Your task to perform on an android device: Search for macbook pro on costco.com, select the first entry, add it to the cart, then select checkout. Image 0: 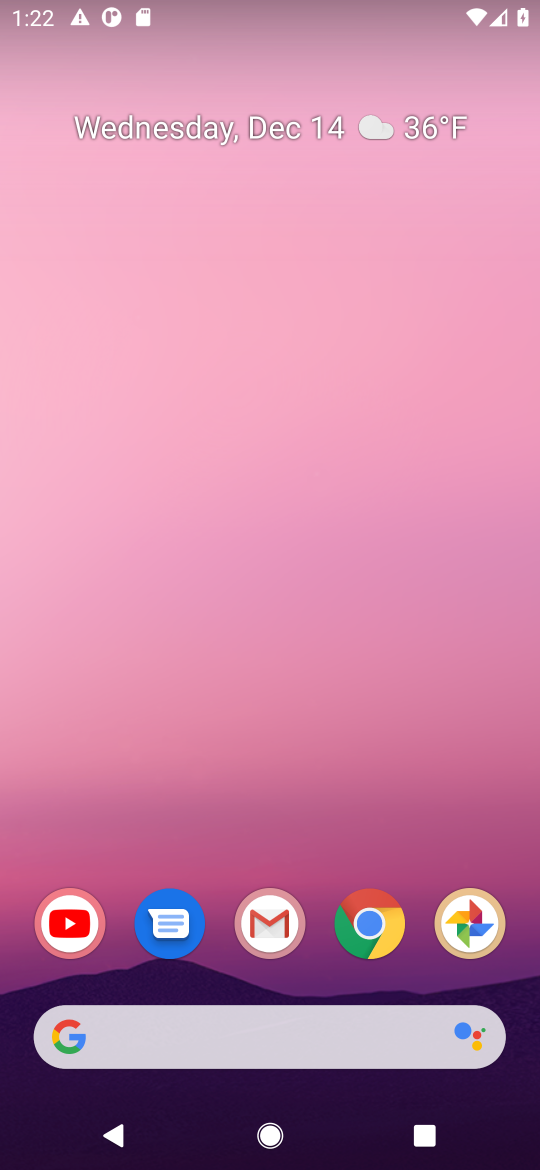
Step 0: click (379, 952)
Your task to perform on an android device: Search for macbook pro on costco.com, select the first entry, add it to the cart, then select checkout. Image 1: 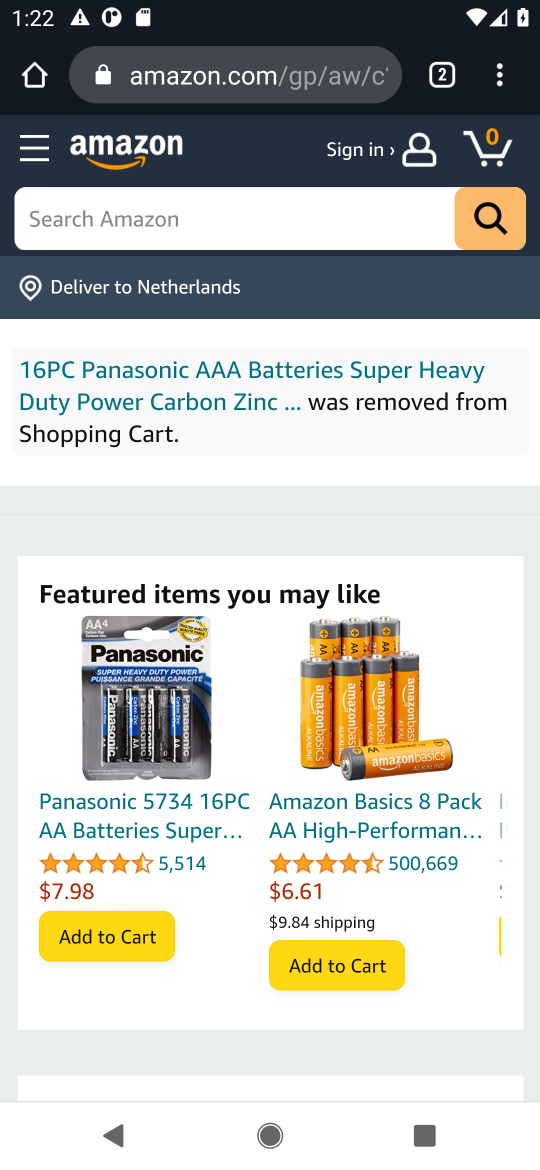
Step 1: click (181, 668)
Your task to perform on an android device: Search for macbook pro on costco.com, select the first entry, add it to the cart, then select checkout. Image 2: 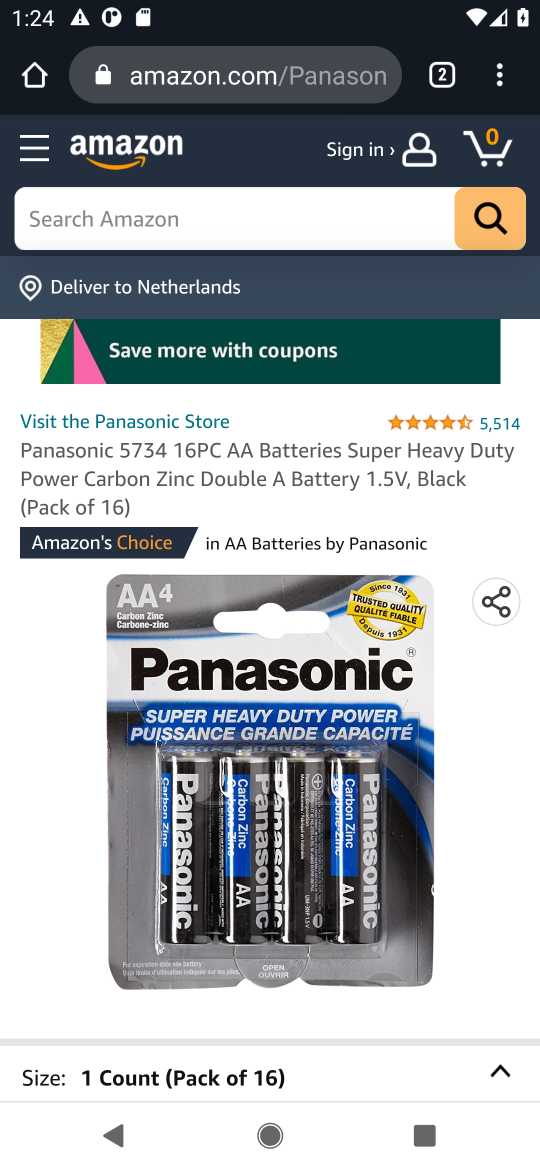
Step 2: task complete